Your task to perform on an android device: turn on airplane mode Image 0: 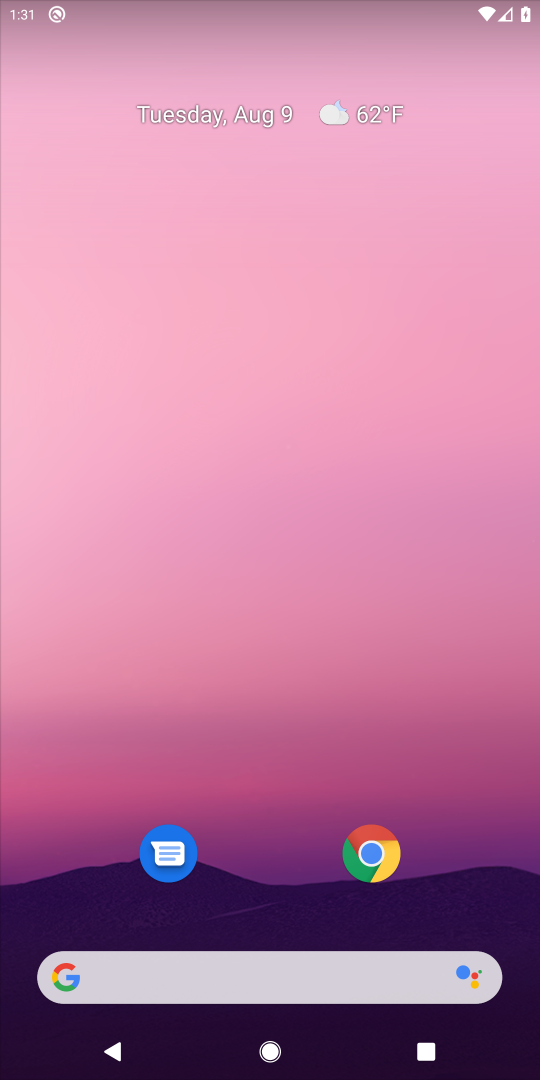
Step 0: press home button
Your task to perform on an android device: turn on airplane mode Image 1: 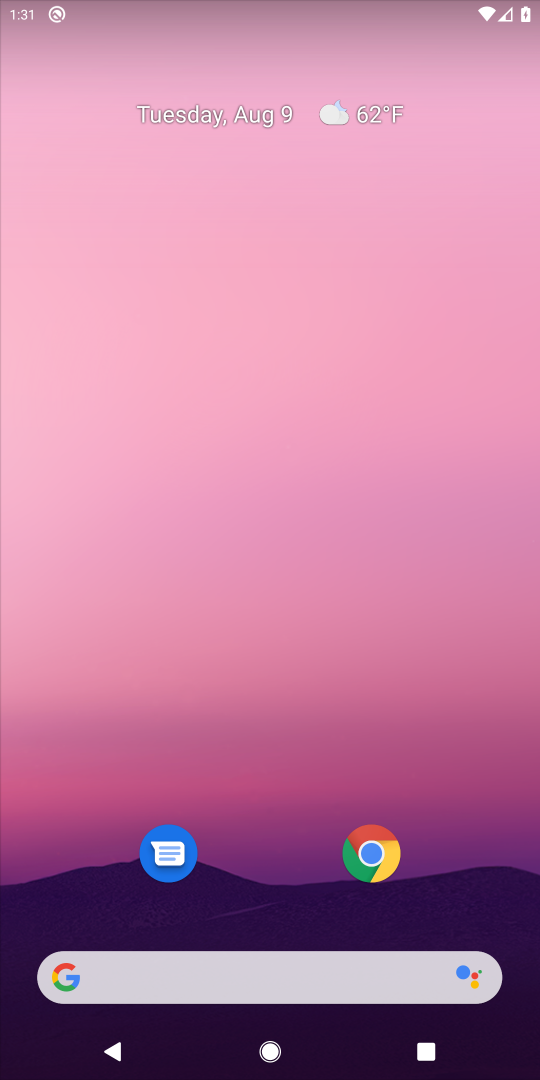
Step 1: drag from (277, 4) to (292, 573)
Your task to perform on an android device: turn on airplane mode Image 2: 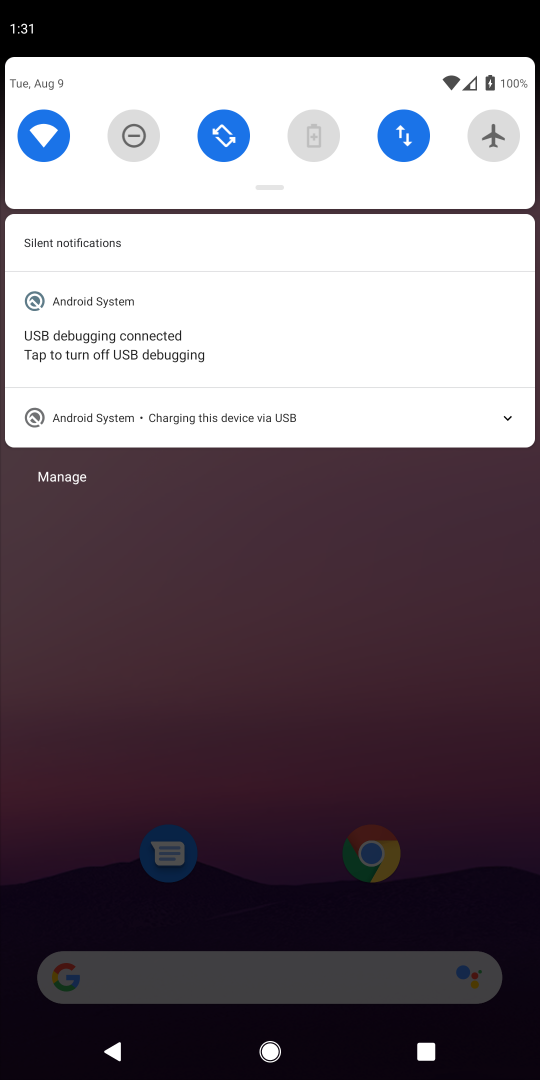
Step 2: click (498, 130)
Your task to perform on an android device: turn on airplane mode Image 3: 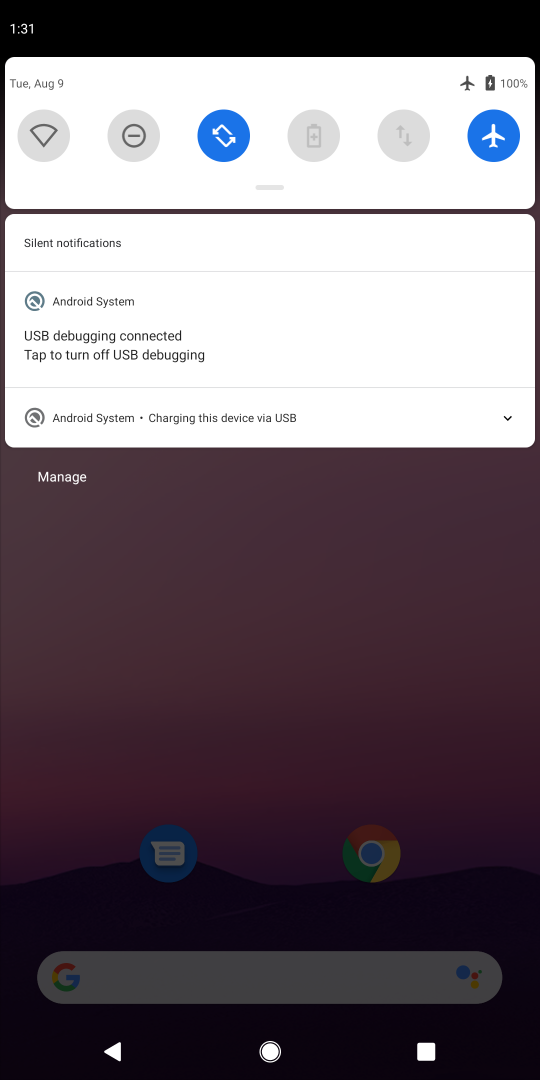
Step 3: task complete